Your task to perform on an android device: Toggle the flashlight Image 0: 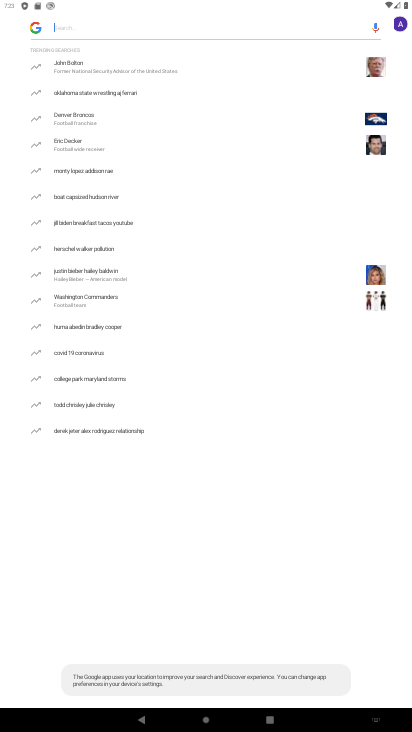
Step 0: press home button
Your task to perform on an android device: Toggle the flashlight Image 1: 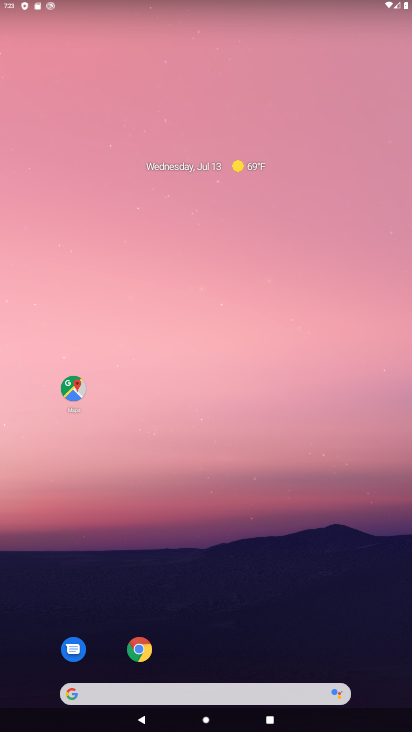
Step 1: drag from (164, 688) to (287, 233)
Your task to perform on an android device: Toggle the flashlight Image 2: 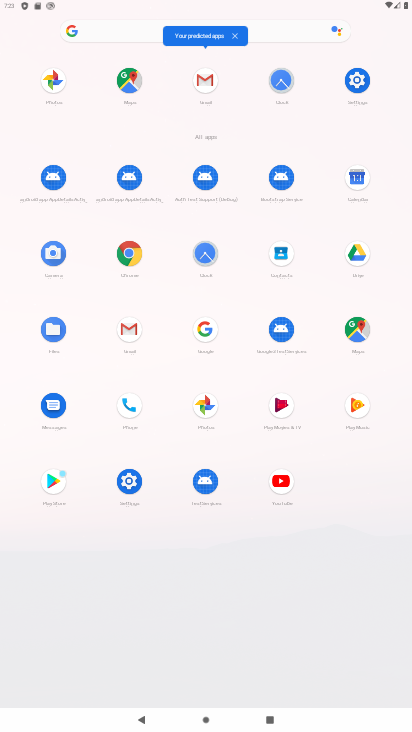
Step 2: click (358, 80)
Your task to perform on an android device: Toggle the flashlight Image 3: 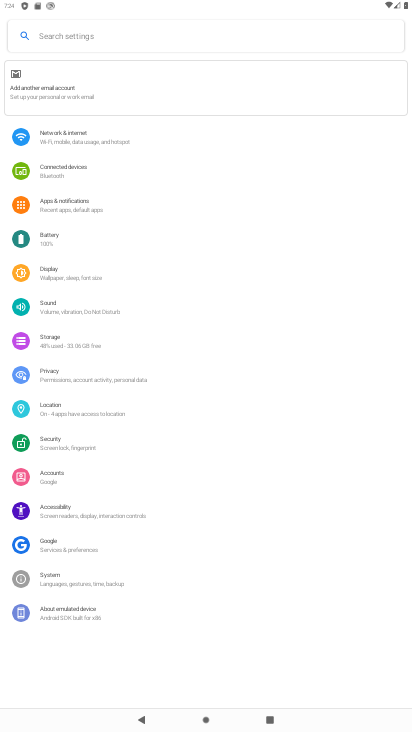
Step 3: click (89, 314)
Your task to perform on an android device: Toggle the flashlight Image 4: 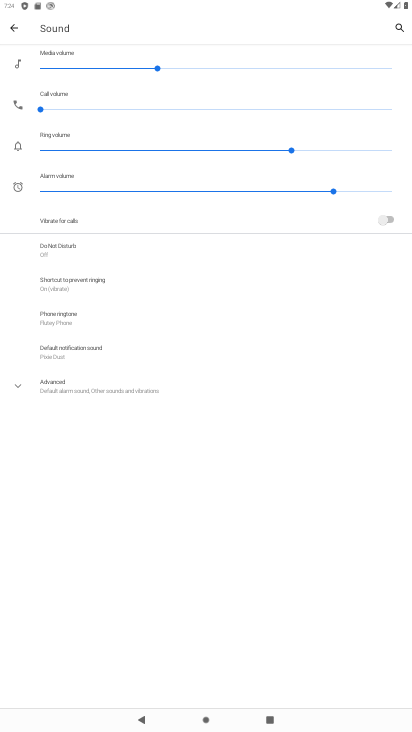
Step 4: press back button
Your task to perform on an android device: Toggle the flashlight Image 5: 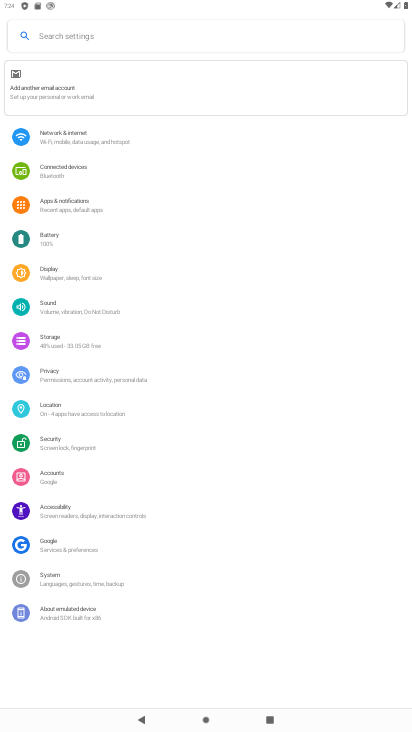
Step 5: click (79, 282)
Your task to perform on an android device: Toggle the flashlight Image 6: 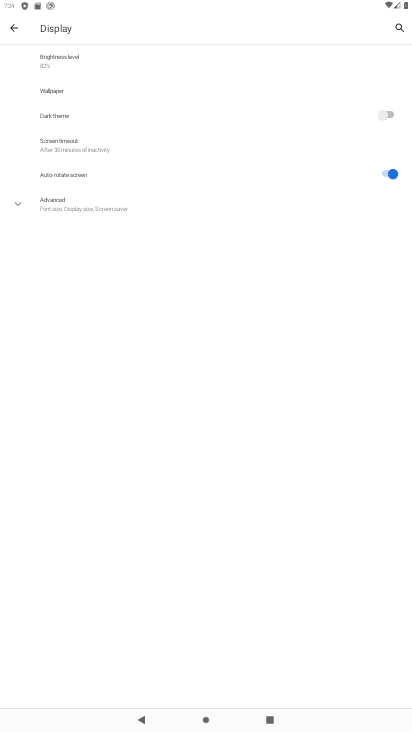
Step 6: click (70, 149)
Your task to perform on an android device: Toggle the flashlight Image 7: 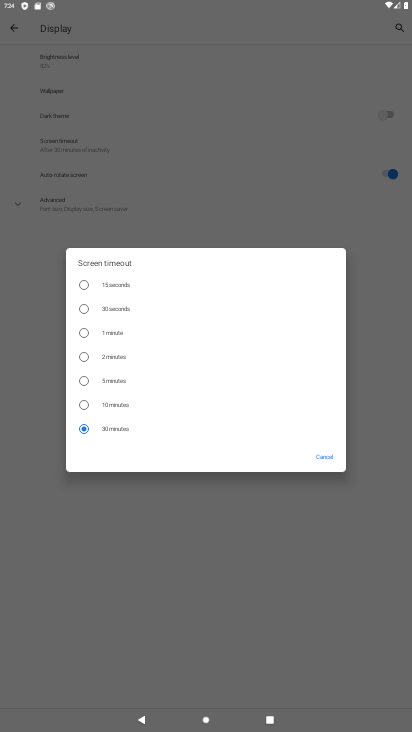
Step 7: click (194, 511)
Your task to perform on an android device: Toggle the flashlight Image 8: 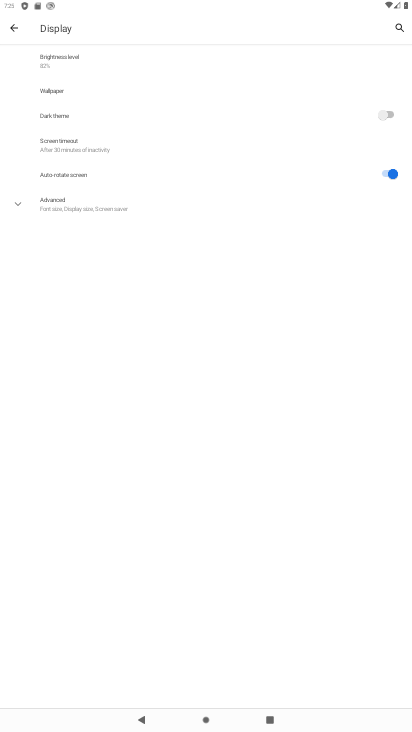
Step 8: click (53, 148)
Your task to perform on an android device: Toggle the flashlight Image 9: 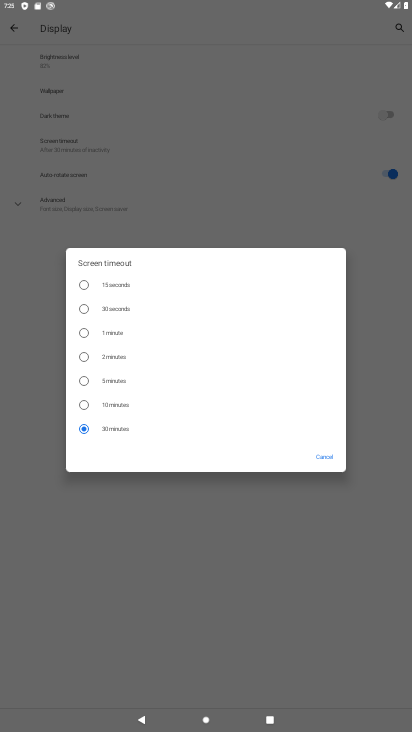
Step 9: click (325, 456)
Your task to perform on an android device: Toggle the flashlight Image 10: 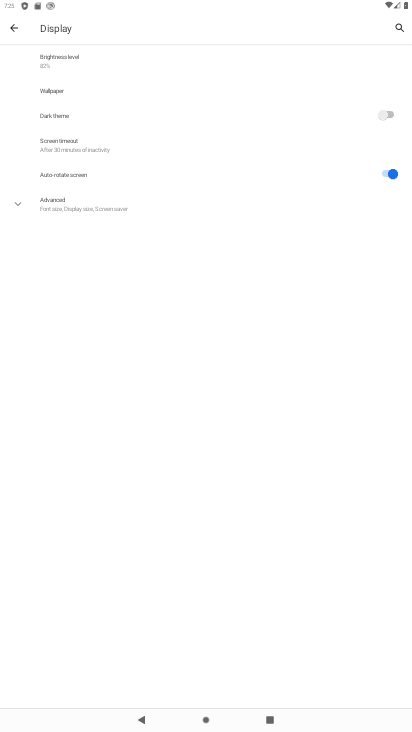
Step 10: press back button
Your task to perform on an android device: Toggle the flashlight Image 11: 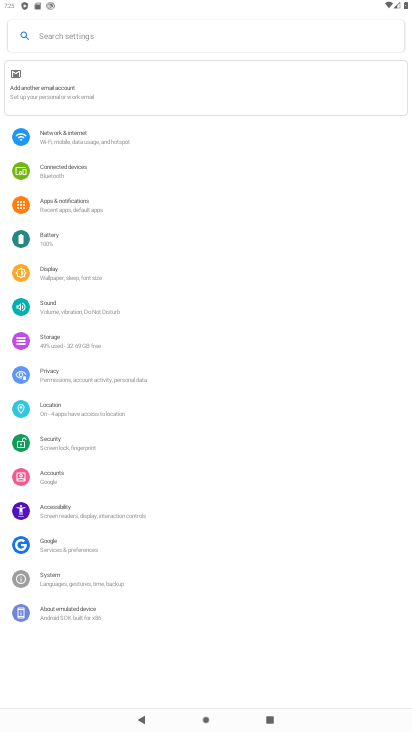
Step 11: click (61, 374)
Your task to perform on an android device: Toggle the flashlight Image 12: 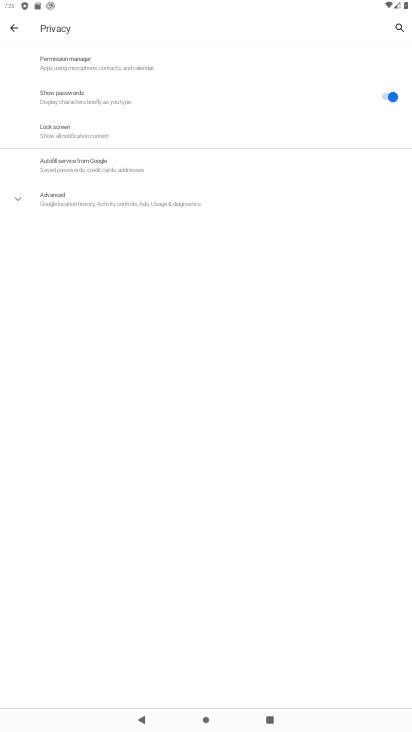
Step 12: task complete